Your task to perform on an android device: turn on showing notifications on the lock screen Image 0: 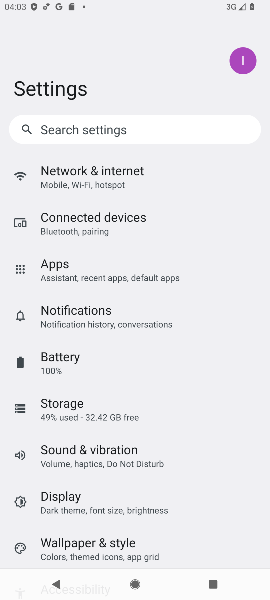
Step 0: press home button
Your task to perform on an android device: turn on showing notifications on the lock screen Image 1: 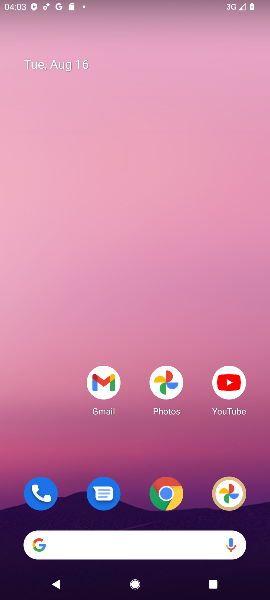
Step 1: drag from (63, 470) to (82, 224)
Your task to perform on an android device: turn on showing notifications on the lock screen Image 2: 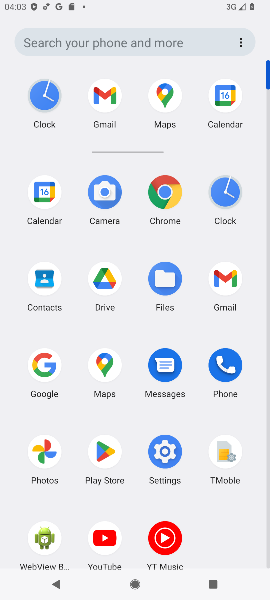
Step 2: click (168, 450)
Your task to perform on an android device: turn on showing notifications on the lock screen Image 3: 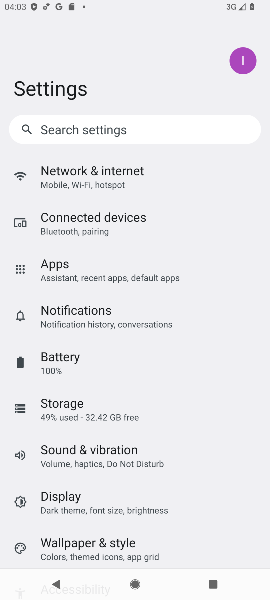
Step 3: drag from (199, 469) to (215, 362)
Your task to perform on an android device: turn on showing notifications on the lock screen Image 4: 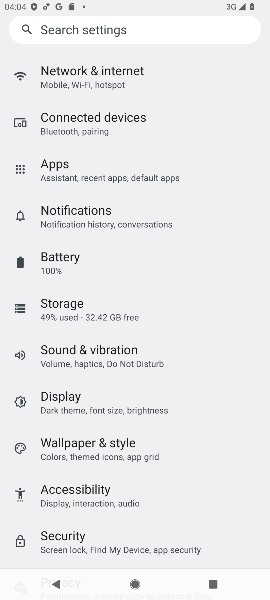
Step 4: drag from (213, 473) to (213, 389)
Your task to perform on an android device: turn on showing notifications on the lock screen Image 5: 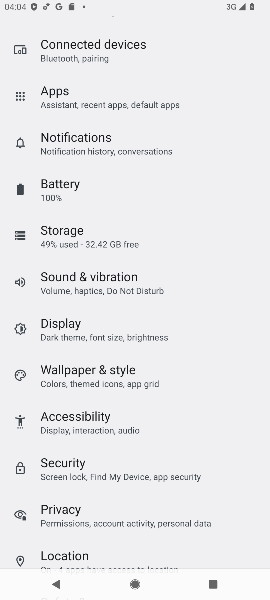
Step 5: drag from (226, 515) to (226, 394)
Your task to perform on an android device: turn on showing notifications on the lock screen Image 6: 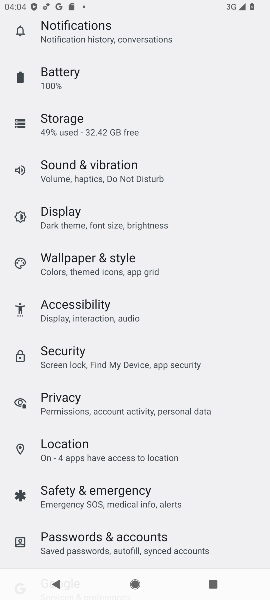
Step 6: drag from (220, 507) to (220, 415)
Your task to perform on an android device: turn on showing notifications on the lock screen Image 7: 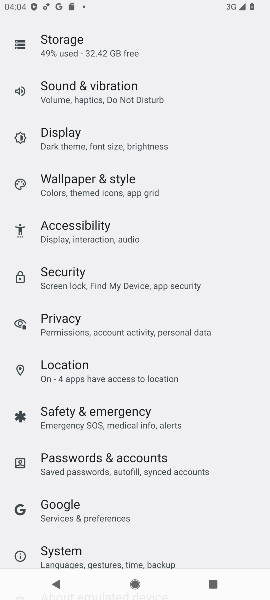
Step 7: drag from (225, 504) to (227, 382)
Your task to perform on an android device: turn on showing notifications on the lock screen Image 8: 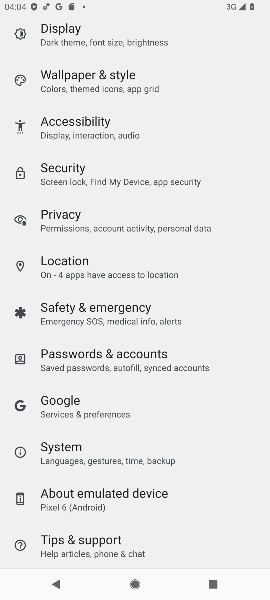
Step 8: drag from (225, 519) to (226, 387)
Your task to perform on an android device: turn on showing notifications on the lock screen Image 9: 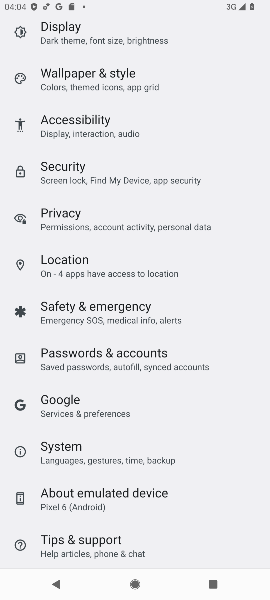
Step 9: drag from (232, 300) to (239, 409)
Your task to perform on an android device: turn on showing notifications on the lock screen Image 10: 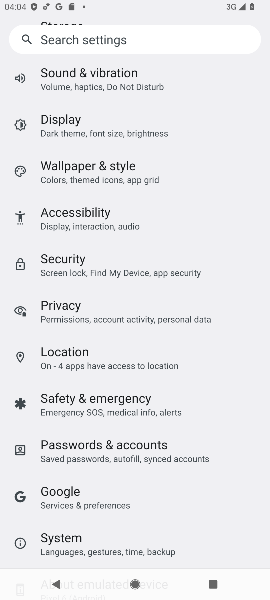
Step 10: drag from (238, 229) to (246, 359)
Your task to perform on an android device: turn on showing notifications on the lock screen Image 11: 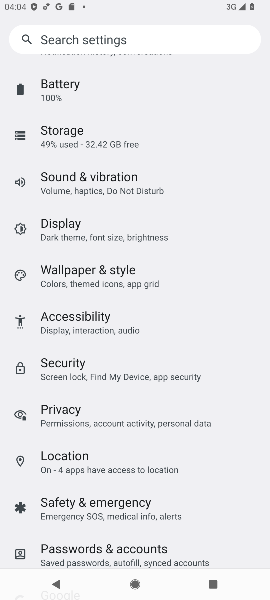
Step 11: drag from (224, 202) to (217, 321)
Your task to perform on an android device: turn on showing notifications on the lock screen Image 12: 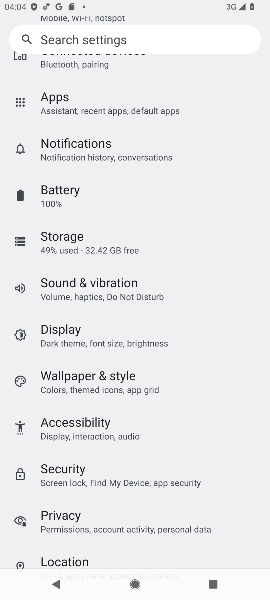
Step 12: drag from (221, 172) to (210, 324)
Your task to perform on an android device: turn on showing notifications on the lock screen Image 13: 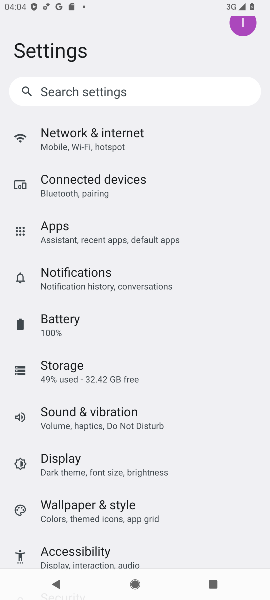
Step 13: drag from (225, 181) to (226, 327)
Your task to perform on an android device: turn on showing notifications on the lock screen Image 14: 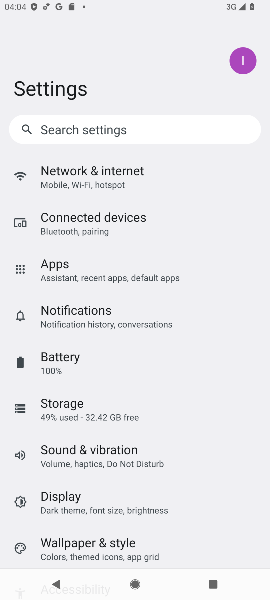
Step 14: click (176, 326)
Your task to perform on an android device: turn on showing notifications on the lock screen Image 15: 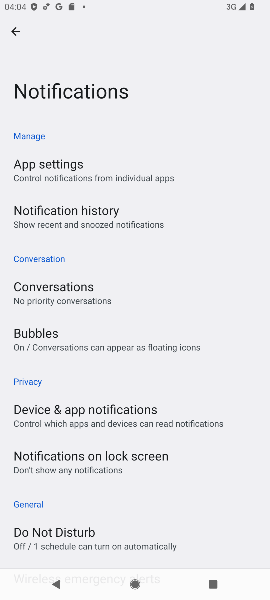
Step 15: drag from (192, 438) to (209, 287)
Your task to perform on an android device: turn on showing notifications on the lock screen Image 16: 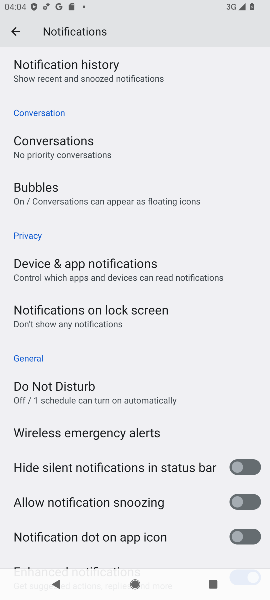
Step 16: drag from (199, 368) to (197, 214)
Your task to perform on an android device: turn on showing notifications on the lock screen Image 17: 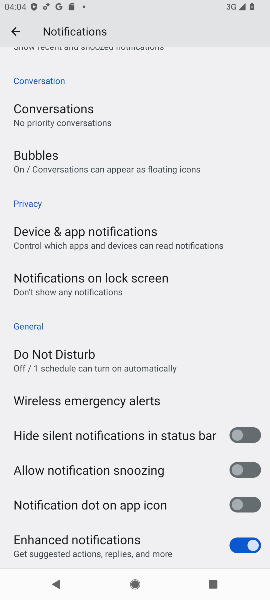
Step 17: click (148, 282)
Your task to perform on an android device: turn on showing notifications on the lock screen Image 18: 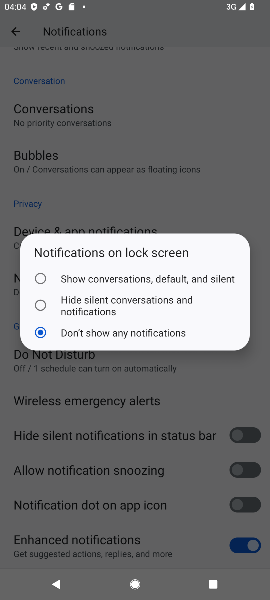
Step 18: click (127, 282)
Your task to perform on an android device: turn on showing notifications on the lock screen Image 19: 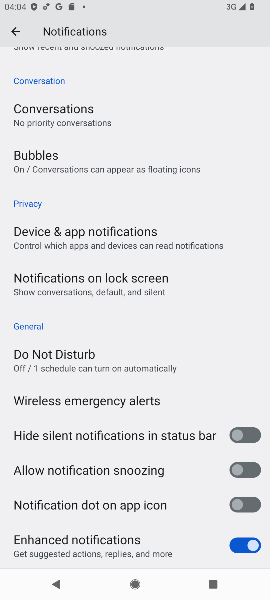
Step 19: task complete